Your task to perform on an android device: turn on location history Image 0: 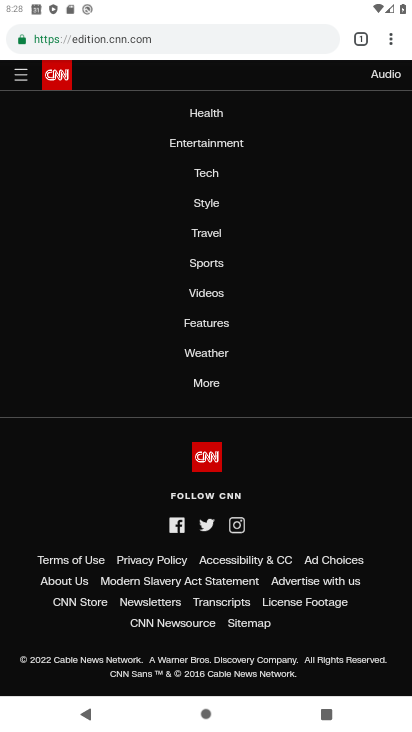
Step 0: press home button
Your task to perform on an android device: turn on location history Image 1: 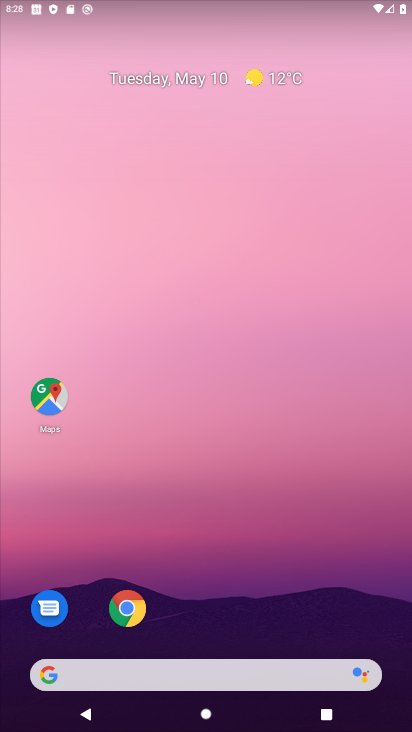
Step 1: drag from (218, 673) to (200, 224)
Your task to perform on an android device: turn on location history Image 2: 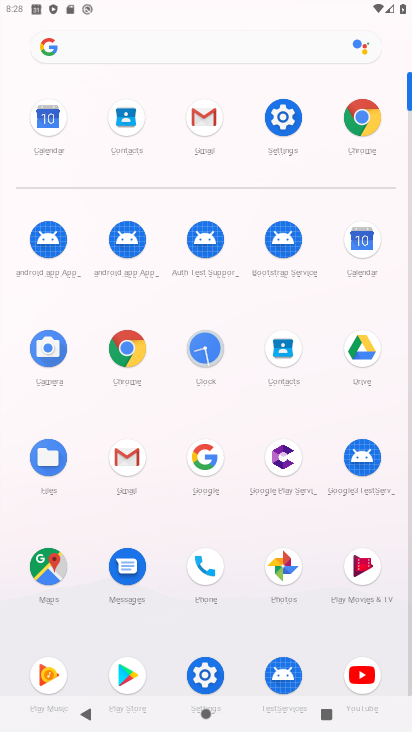
Step 2: click (206, 666)
Your task to perform on an android device: turn on location history Image 3: 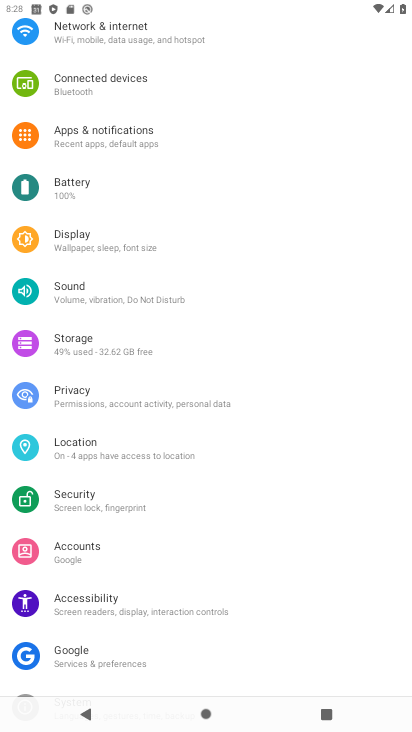
Step 3: click (101, 453)
Your task to perform on an android device: turn on location history Image 4: 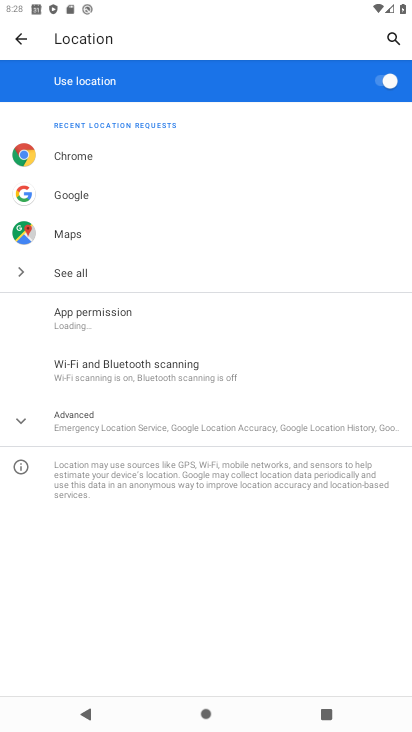
Step 4: click (139, 407)
Your task to perform on an android device: turn on location history Image 5: 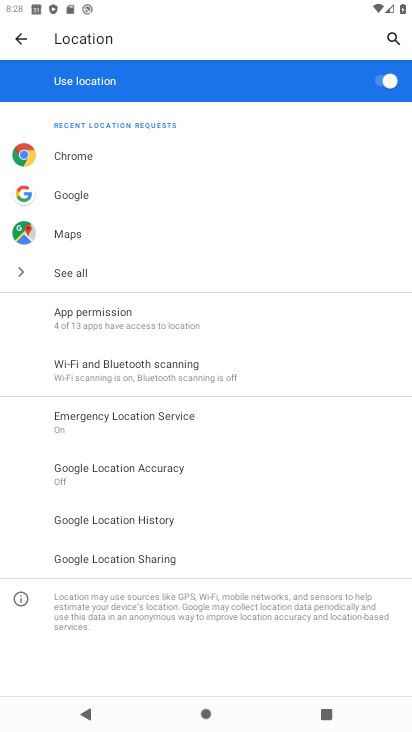
Step 5: click (164, 524)
Your task to perform on an android device: turn on location history Image 6: 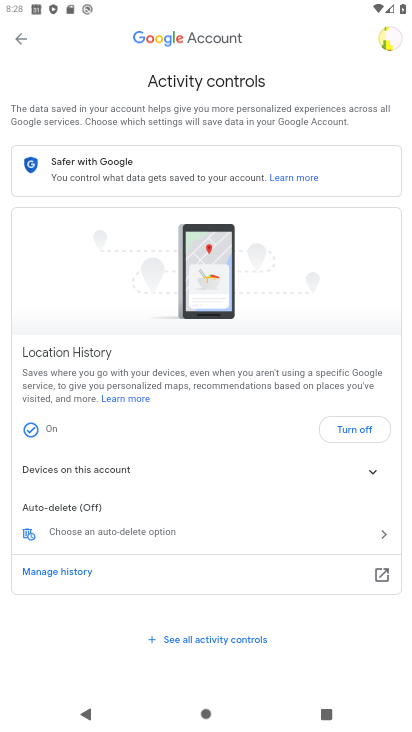
Step 6: task complete